Your task to perform on an android device: Turn on the flashlight Image 0: 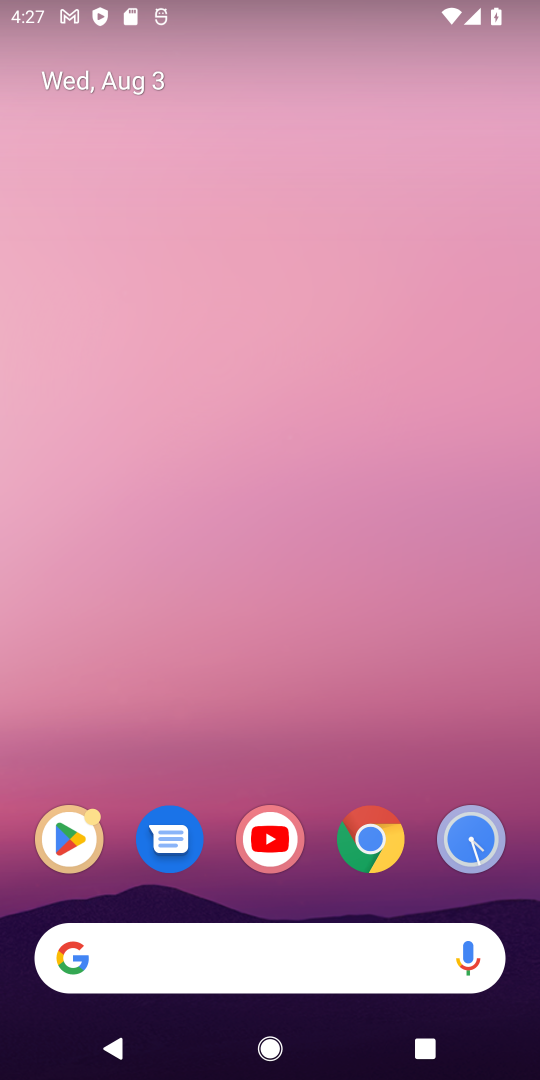
Step 0: drag from (285, 547) to (429, 43)
Your task to perform on an android device: Turn on the flashlight Image 1: 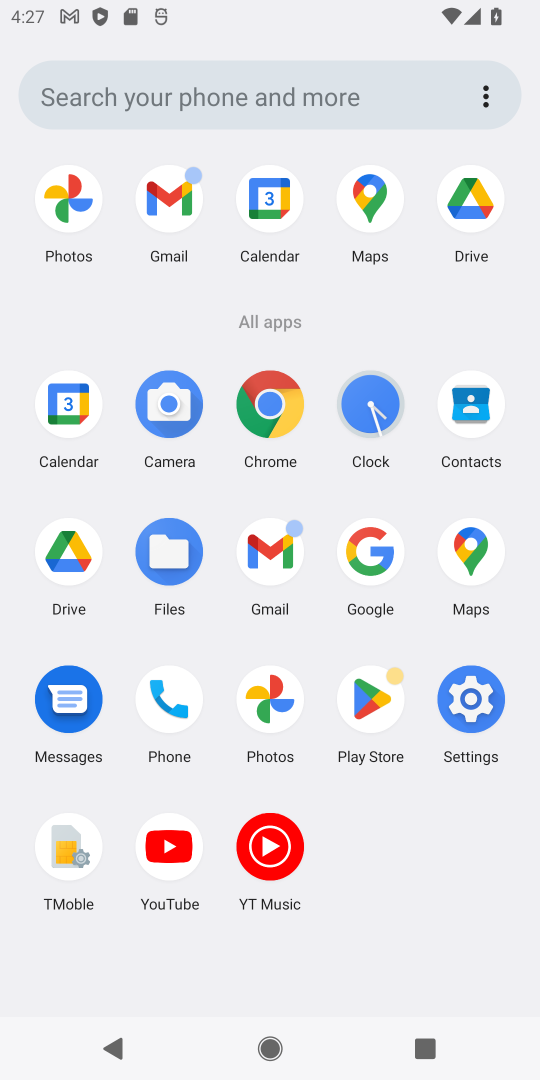
Step 1: click (465, 701)
Your task to perform on an android device: Turn on the flashlight Image 2: 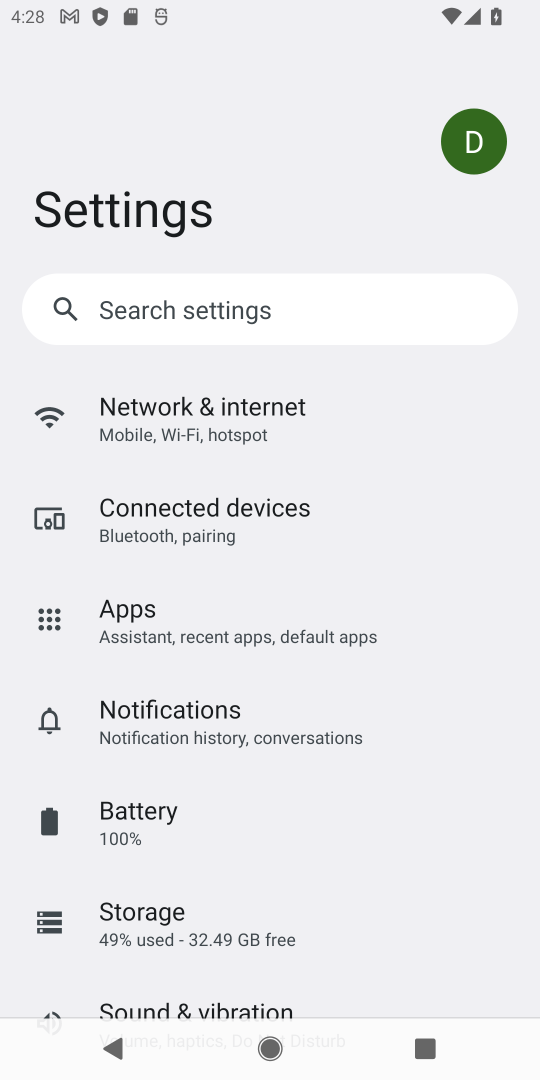
Step 2: click (220, 321)
Your task to perform on an android device: Turn on the flashlight Image 3: 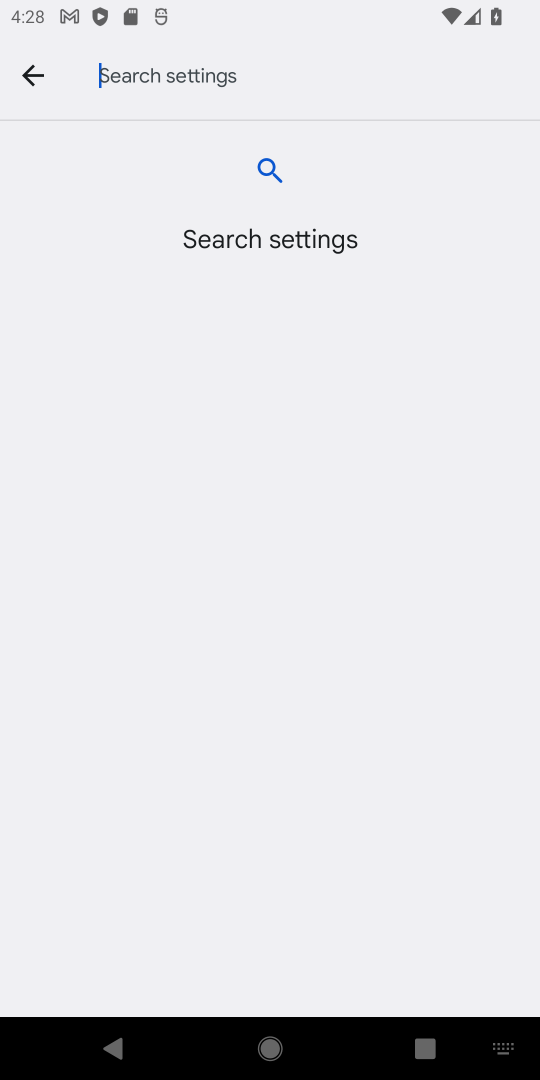
Step 3: type "flashlight"
Your task to perform on an android device: Turn on the flashlight Image 4: 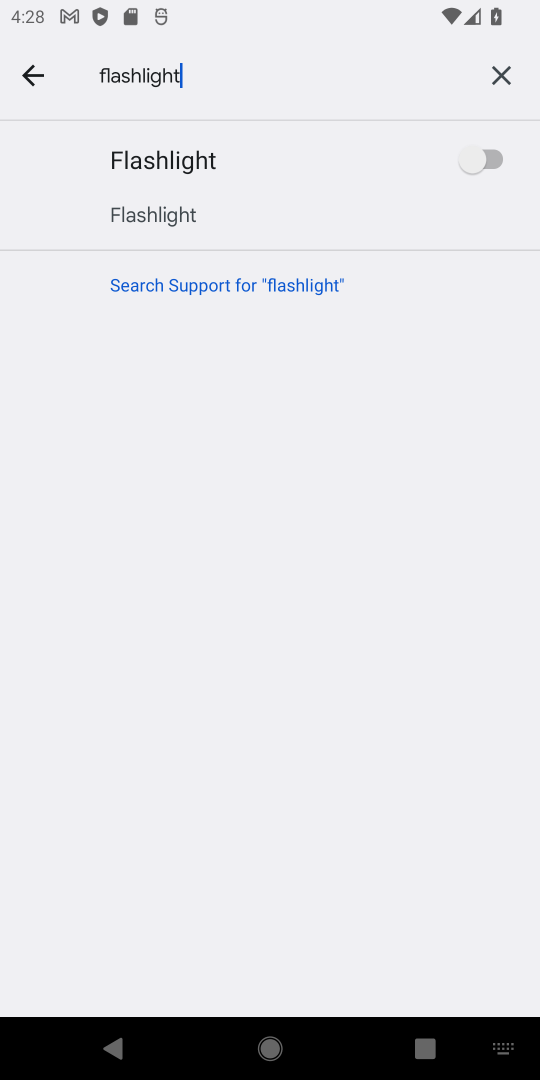
Step 4: click (182, 184)
Your task to perform on an android device: Turn on the flashlight Image 5: 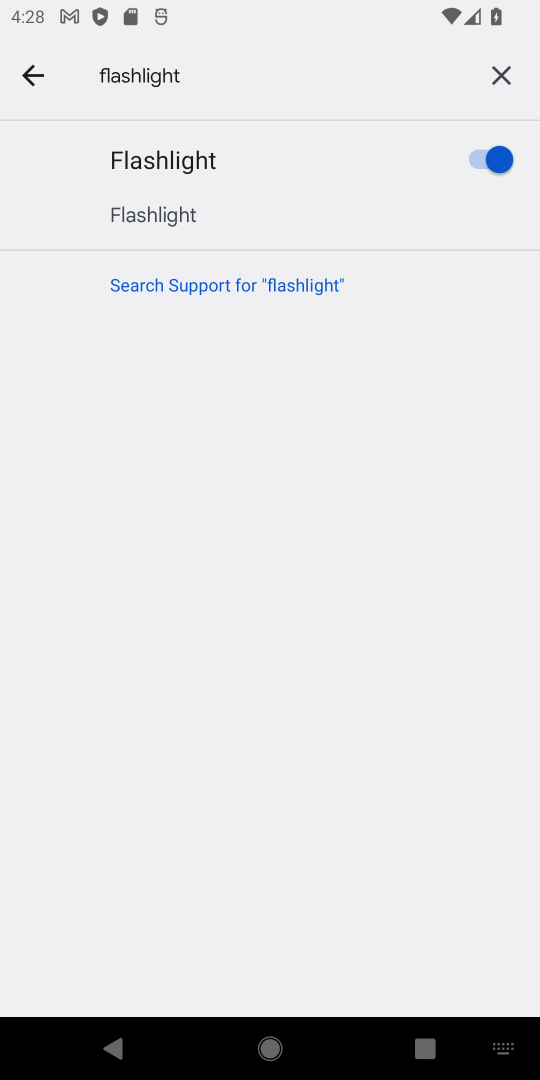
Step 5: task complete